Your task to perform on an android device: change the clock display to show seconds Image 0: 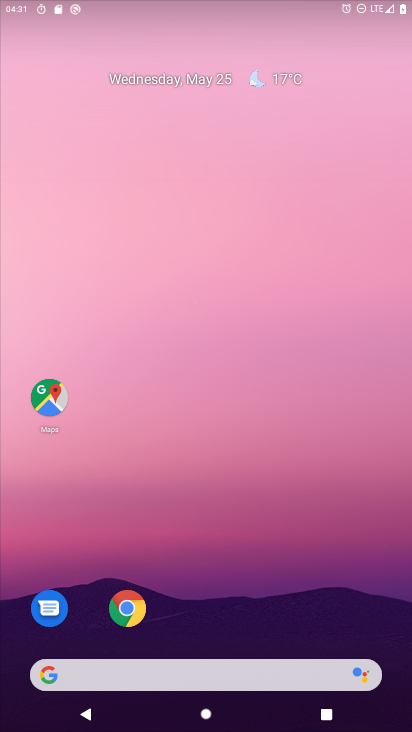
Step 0: drag from (302, 543) to (301, 134)
Your task to perform on an android device: change the clock display to show seconds Image 1: 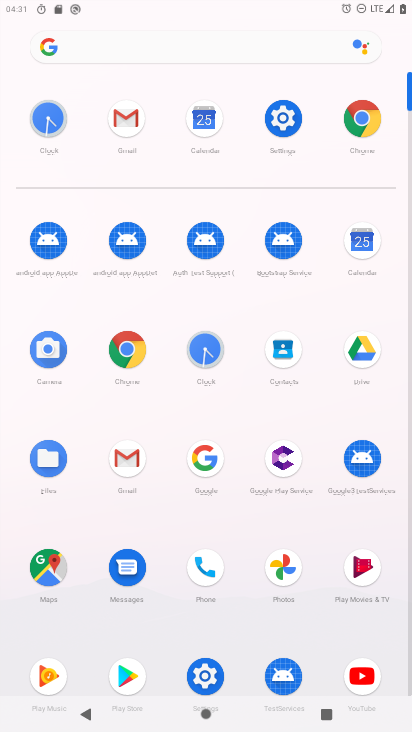
Step 1: click (193, 355)
Your task to perform on an android device: change the clock display to show seconds Image 2: 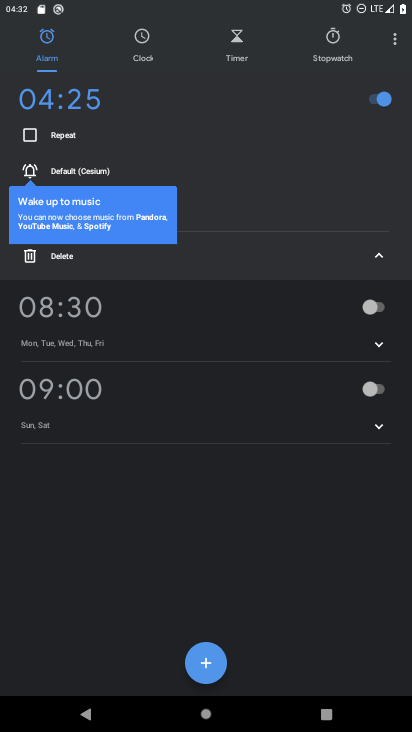
Step 2: click (392, 46)
Your task to perform on an android device: change the clock display to show seconds Image 3: 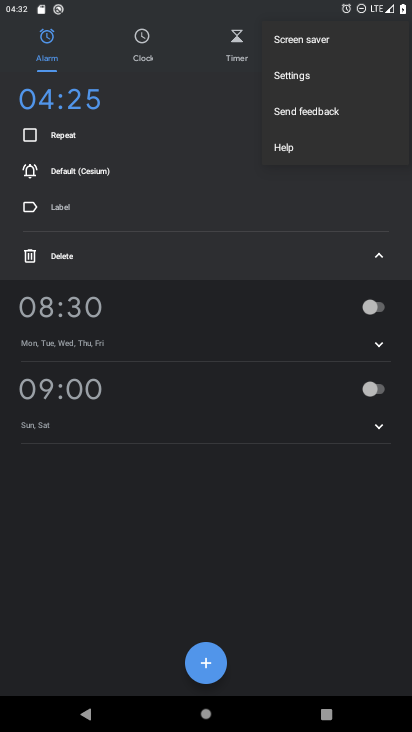
Step 3: click (307, 83)
Your task to perform on an android device: change the clock display to show seconds Image 4: 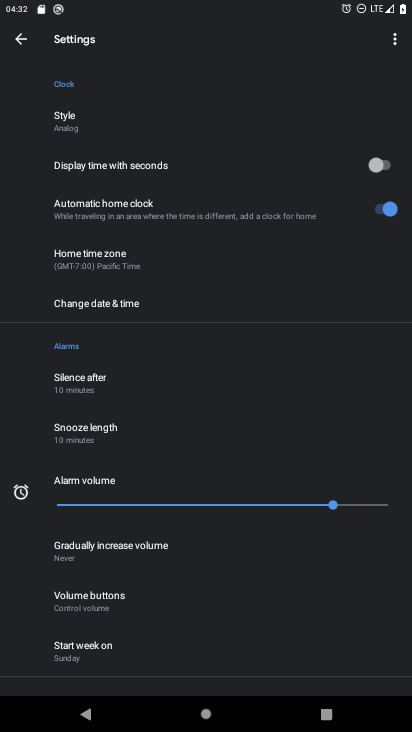
Step 4: click (376, 162)
Your task to perform on an android device: change the clock display to show seconds Image 5: 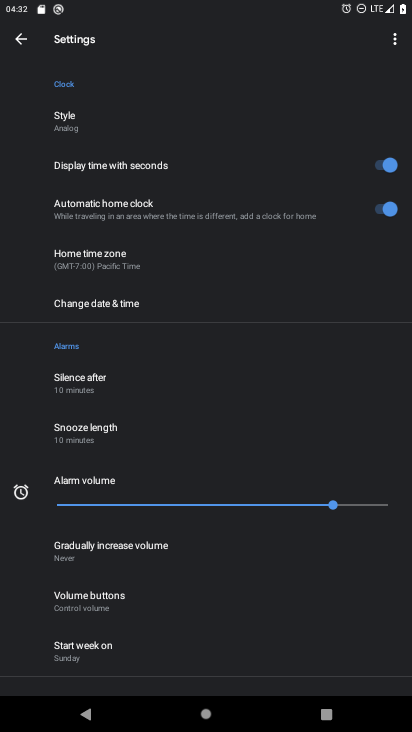
Step 5: task complete